Your task to perform on an android device: clear history in the chrome app Image 0: 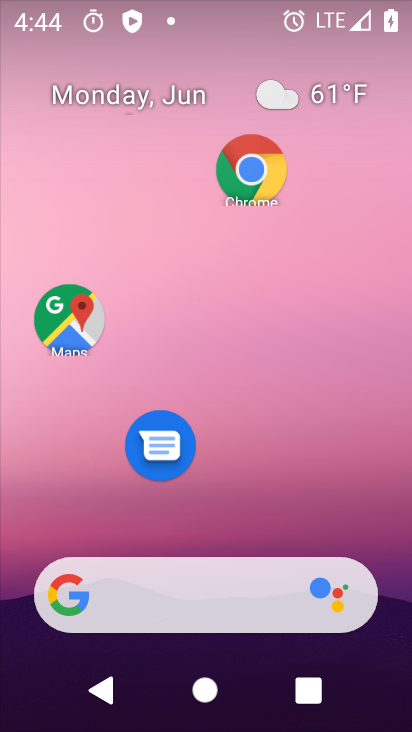
Step 0: click (264, 178)
Your task to perform on an android device: clear history in the chrome app Image 1: 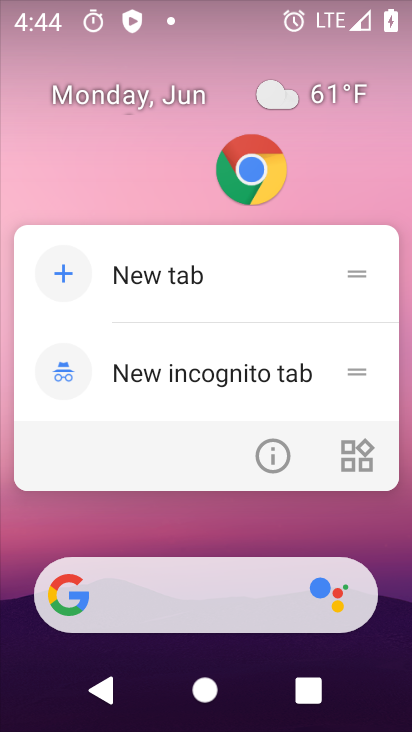
Step 1: click (248, 174)
Your task to perform on an android device: clear history in the chrome app Image 2: 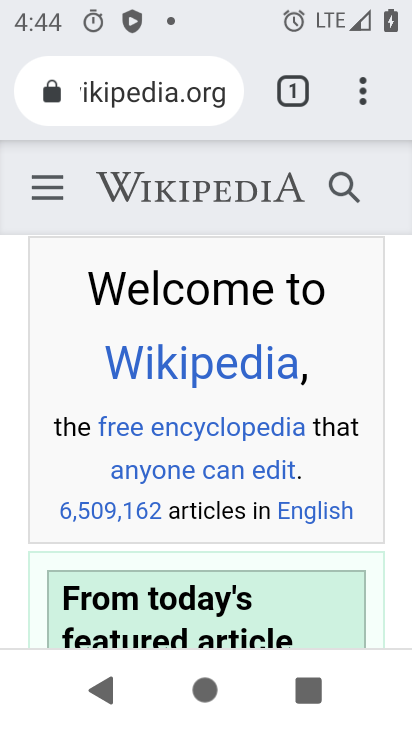
Step 2: click (363, 86)
Your task to perform on an android device: clear history in the chrome app Image 3: 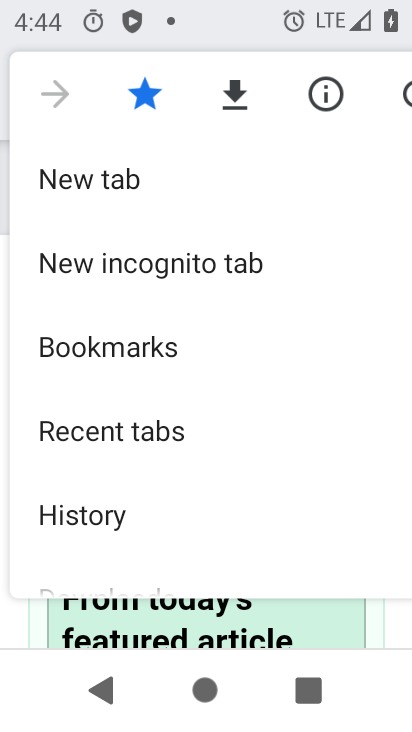
Step 3: click (119, 513)
Your task to perform on an android device: clear history in the chrome app Image 4: 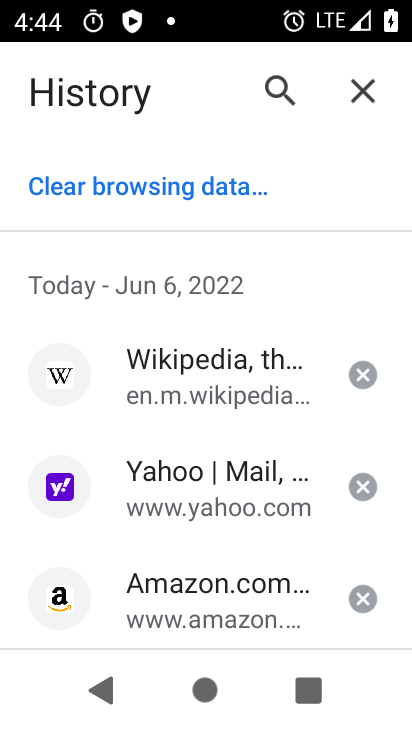
Step 4: click (145, 189)
Your task to perform on an android device: clear history in the chrome app Image 5: 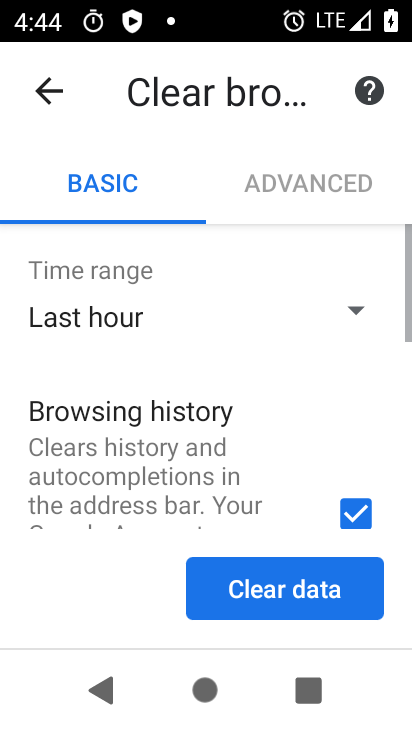
Step 5: drag from (245, 492) to (246, 443)
Your task to perform on an android device: clear history in the chrome app Image 6: 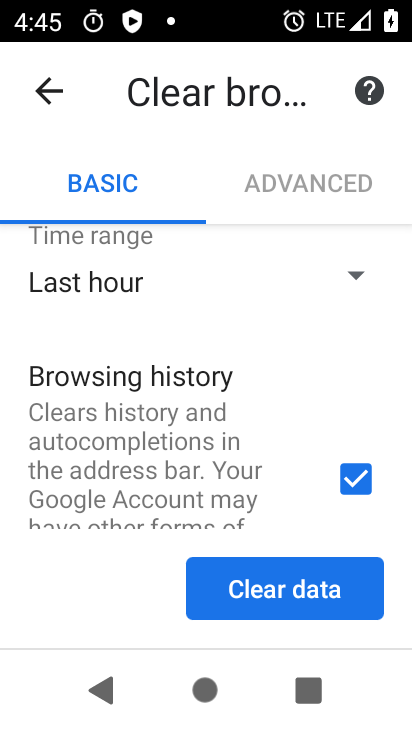
Step 6: drag from (170, 526) to (186, 312)
Your task to perform on an android device: clear history in the chrome app Image 7: 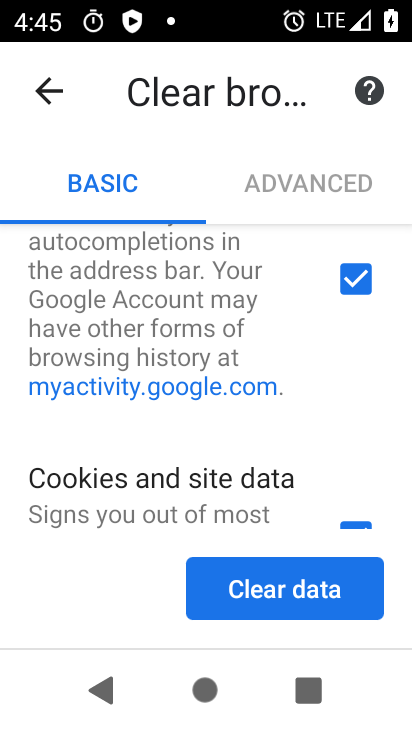
Step 7: drag from (232, 500) to (278, 244)
Your task to perform on an android device: clear history in the chrome app Image 8: 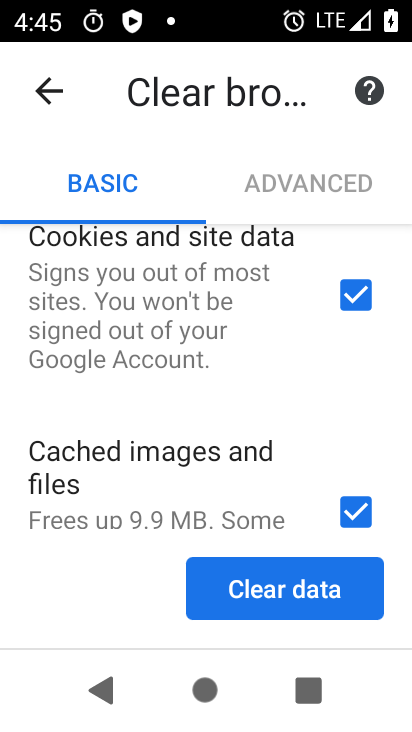
Step 8: click (308, 596)
Your task to perform on an android device: clear history in the chrome app Image 9: 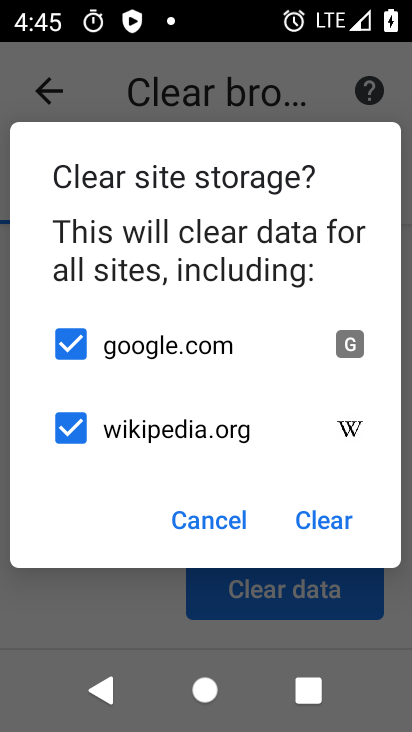
Step 9: click (319, 508)
Your task to perform on an android device: clear history in the chrome app Image 10: 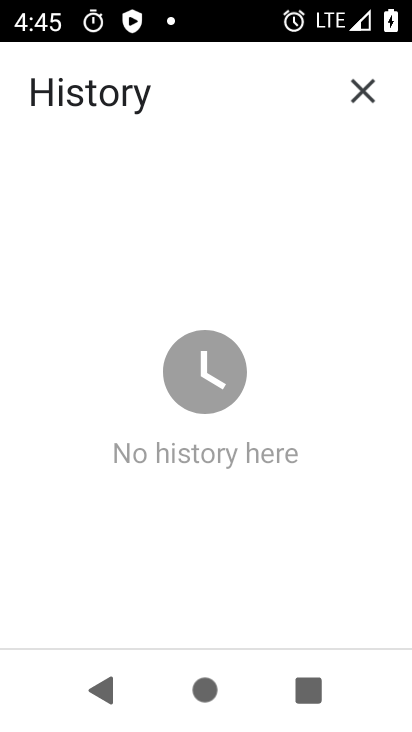
Step 10: task complete